Your task to perform on an android device: toggle notifications settings in the gmail app Image 0: 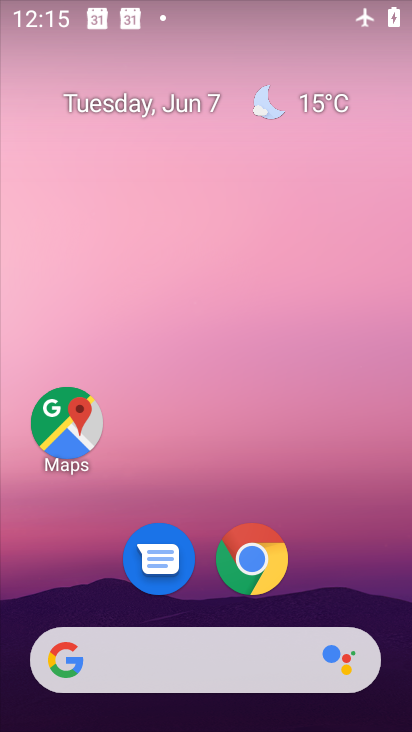
Step 0: drag from (396, 611) to (370, 121)
Your task to perform on an android device: toggle notifications settings in the gmail app Image 1: 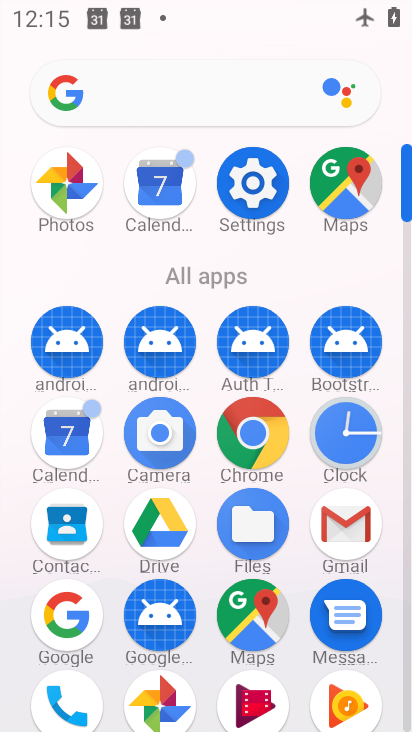
Step 1: click (408, 704)
Your task to perform on an android device: toggle notifications settings in the gmail app Image 2: 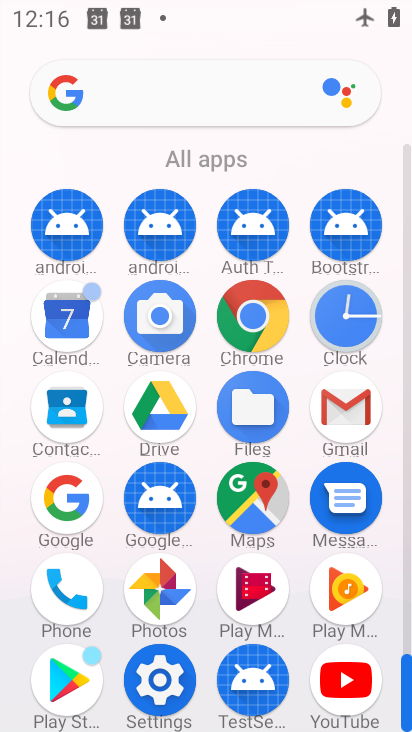
Step 2: click (347, 410)
Your task to perform on an android device: toggle notifications settings in the gmail app Image 3: 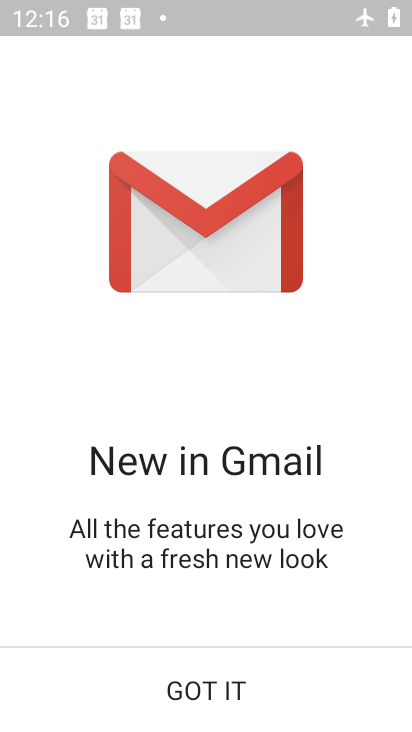
Step 3: click (222, 688)
Your task to perform on an android device: toggle notifications settings in the gmail app Image 4: 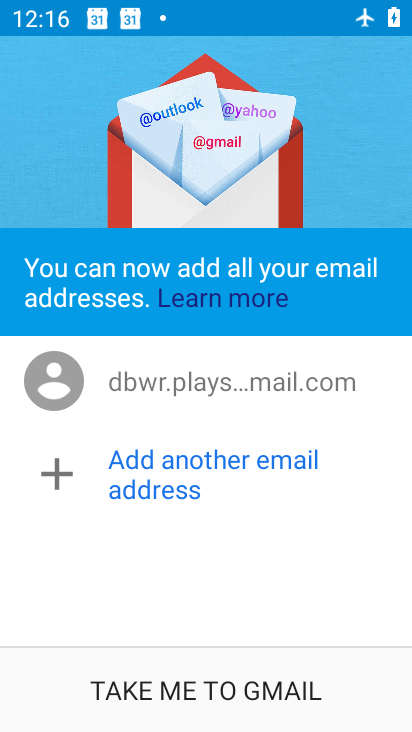
Step 4: click (222, 688)
Your task to perform on an android device: toggle notifications settings in the gmail app Image 5: 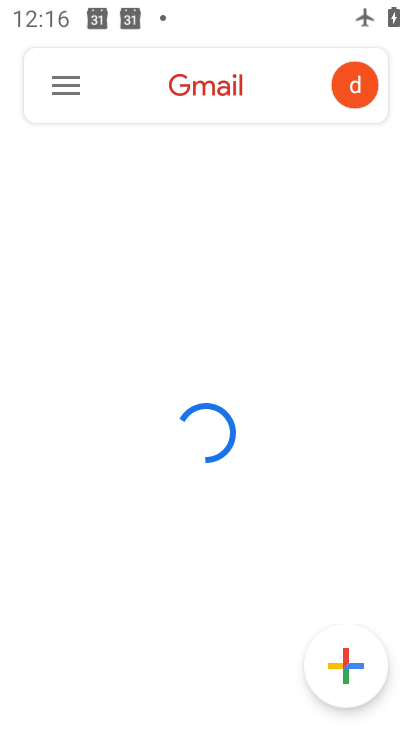
Step 5: click (63, 85)
Your task to perform on an android device: toggle notifications settings in the gmail app Image 6: 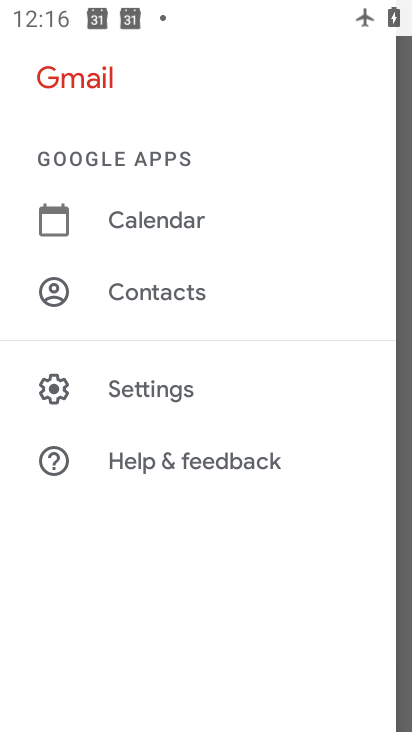
Step 6: click (139, 379)
Your task to perform on an android device: toggle notifications settings in the gmail app Image 7: 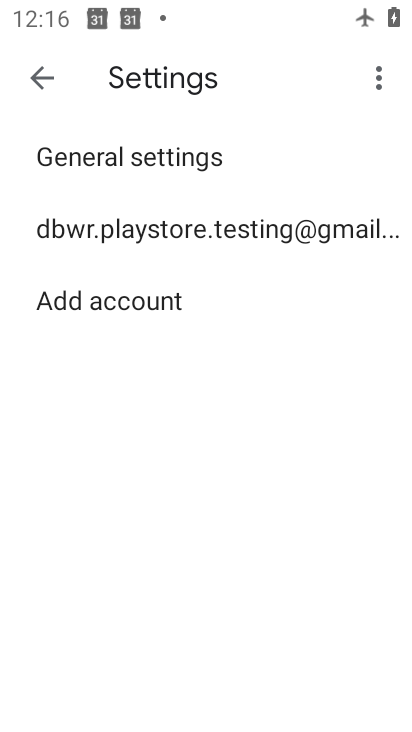
Step 7: click (141, 230)
Your task to perform on an android device: toggle notifications settings in the gmail app Image 8: 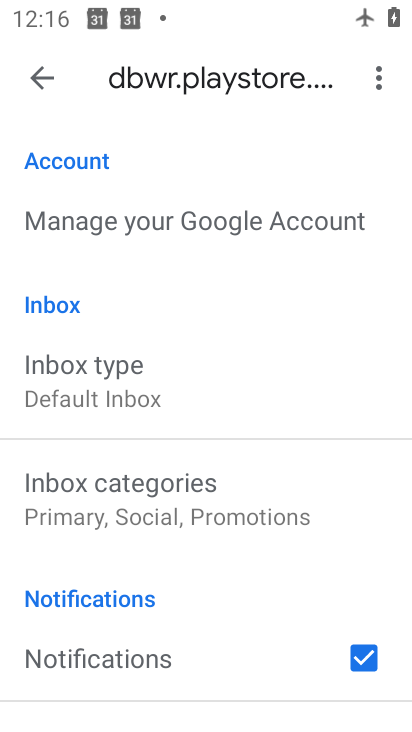
Step 8: drag from (138, 462) to (164, 119)
Your task to perform on an android device: toggle notifications settings in the gmail app Image 9: 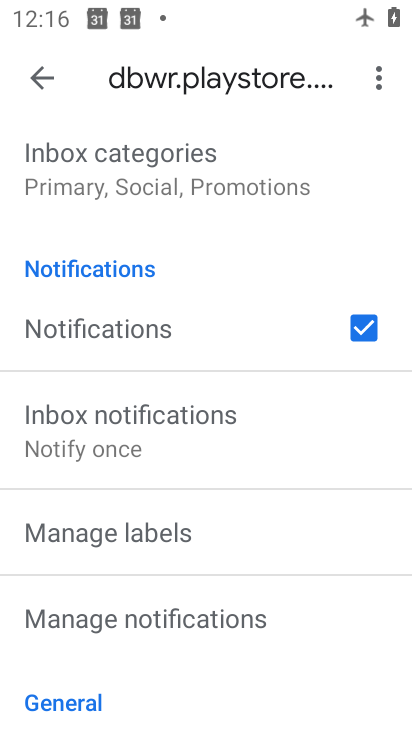
Step 9: click (145, 592)
Your task to perform on an android device: toggle notifications settings in the gmail app Image 10: 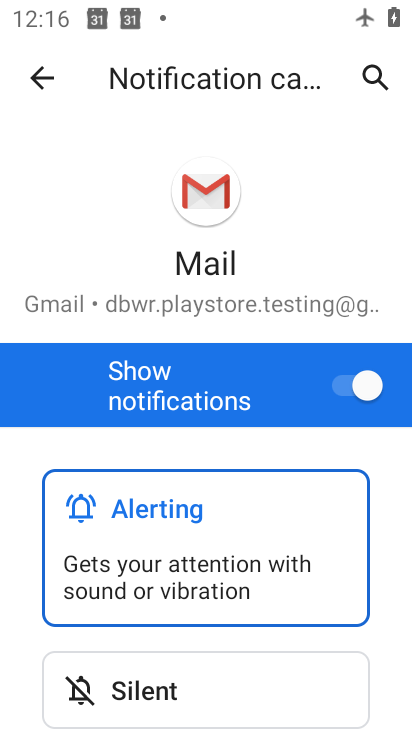
Step 10: click (336, 380)
Your task to perform on an android device: toggle notifications settings in the gmail app Image 11: 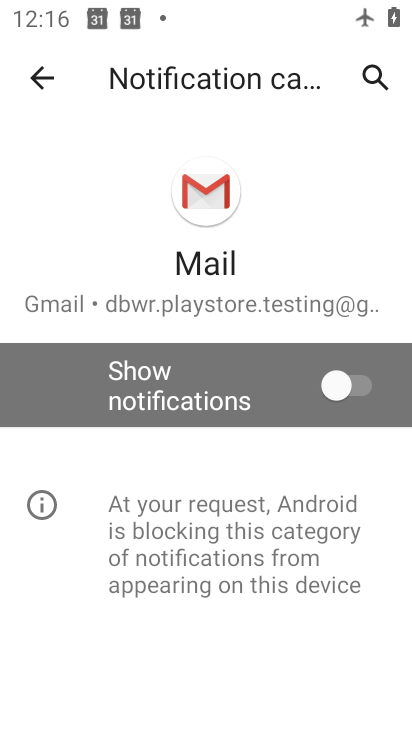
Step 11: task complete